Your task to perform on an android device: toggle airplane mode Image 0: 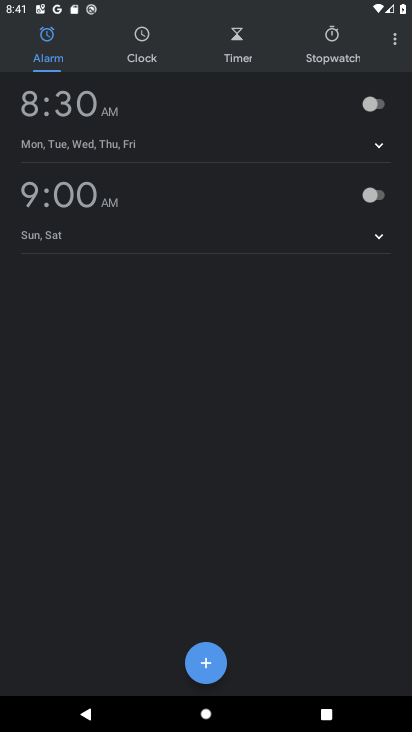
Step 0: click (228, 468)
Your task to perform on an android device: toggle airplane mode Image 1: 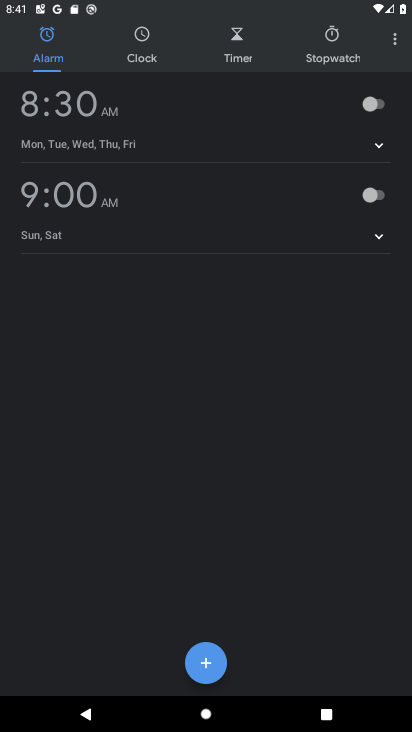
Step 1: drag from (155, 10) to (126, 650)
Your task to perform on an android device: toggle airplane mode Image 2: 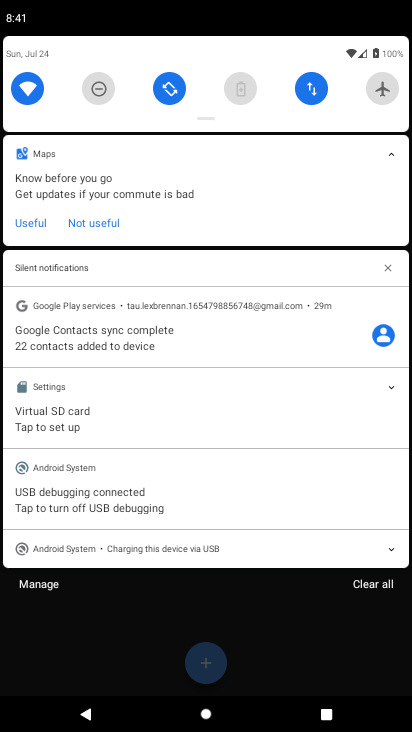
Step 2: click (391, 94)
Your task to perform on an android device: toggle airplane mode Image 3: 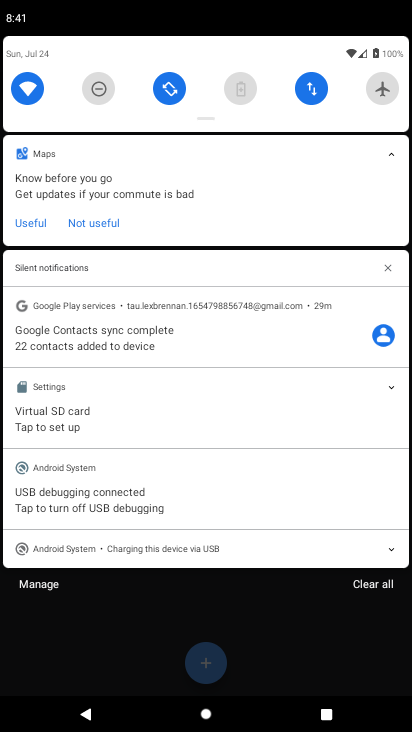
Step 3: click (391, 94)
Your task to perform on an android device: toggle airplane mode Image 4: 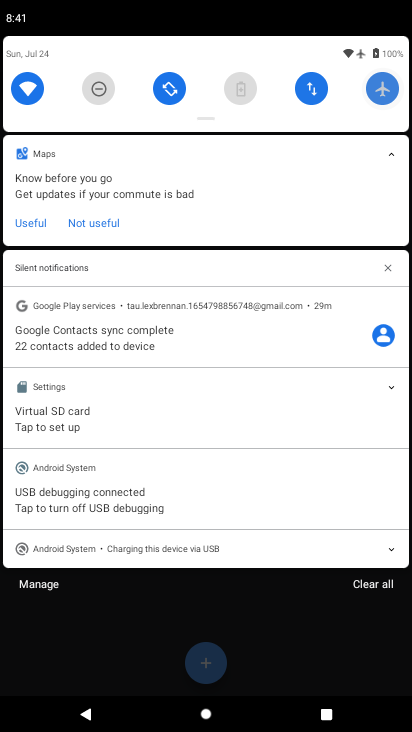
Step 4: click (391, 94)
Your task to perform on an android device: toggle airplane mode Image 5: 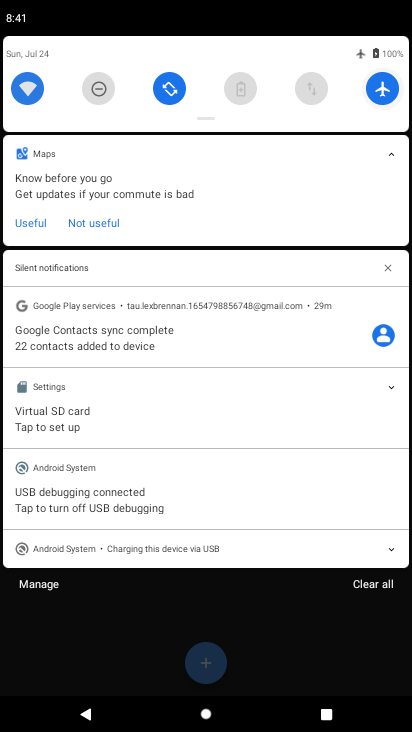
Step 5: click (391, 94)
Your task to perform on an android device: toggle airplane mode Image 6: 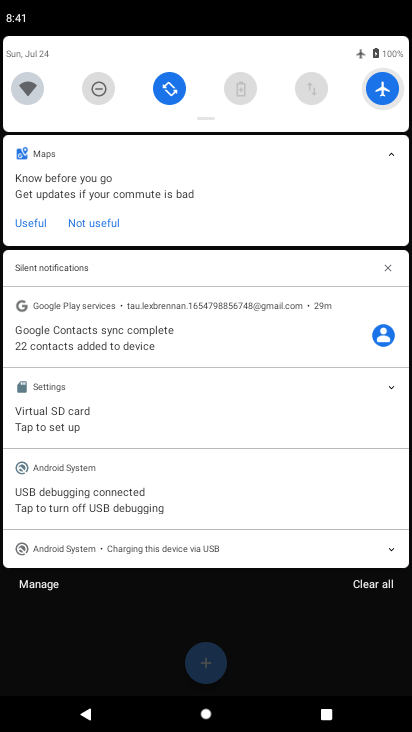
Step 6: click (391, 94)
Your task to perform on an android device: toggle airplane mode Image 7: 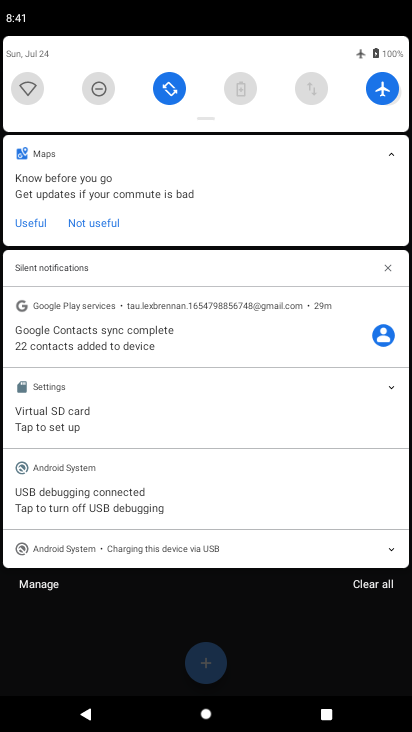
Step 7: click (391, 94)
Your task to perform on an android device: toggle airplane mode Image 8: 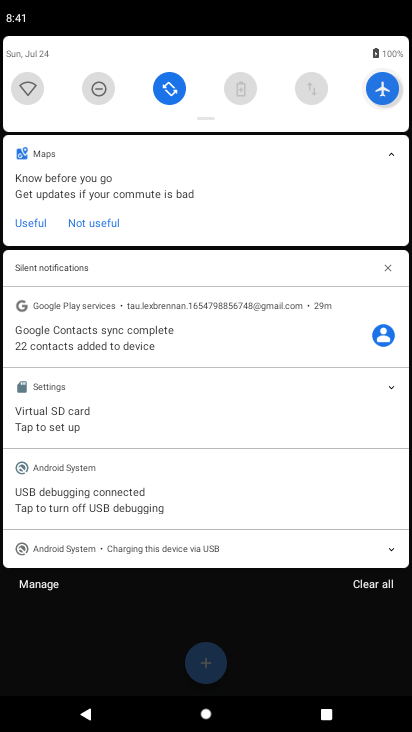
Step 8: click (391, 94)
Your task to perform on an android device: toggle airplane mode Image 9: 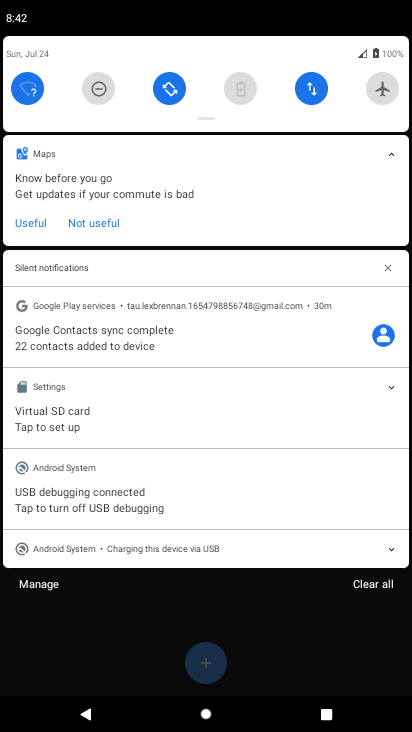
Step 9: task complete